Your task to perform on an android device: Open my contact list Image 0: 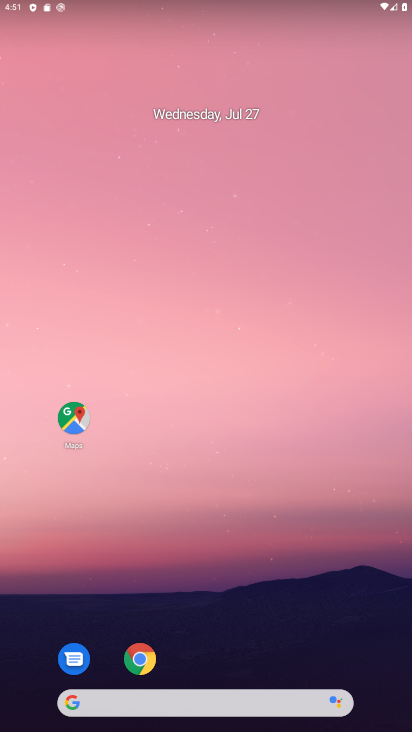
Step 0: drag from (236, 659) to (221, 101)
Your task to perform on an android device: Open my contact list Image 1: 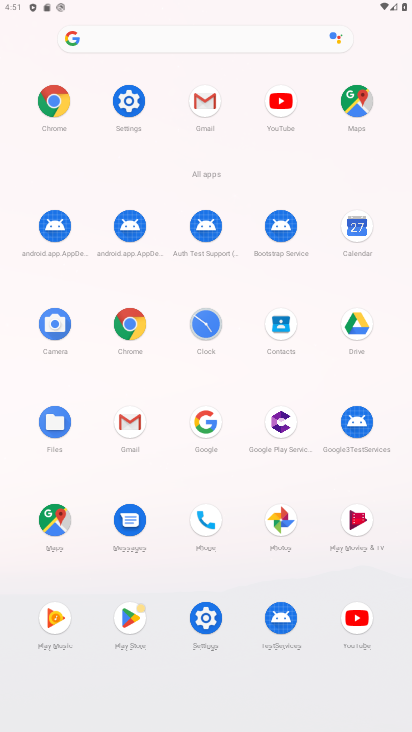
Step 1: click (275, 325)
Your task to perform on an android device: Open my contact list Image 2: 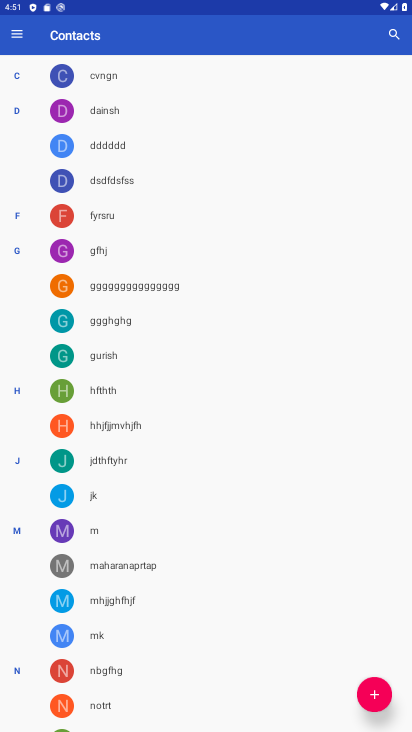
Step 2: task complete